Your task to perform on an android device: Open the web browser Image 0: 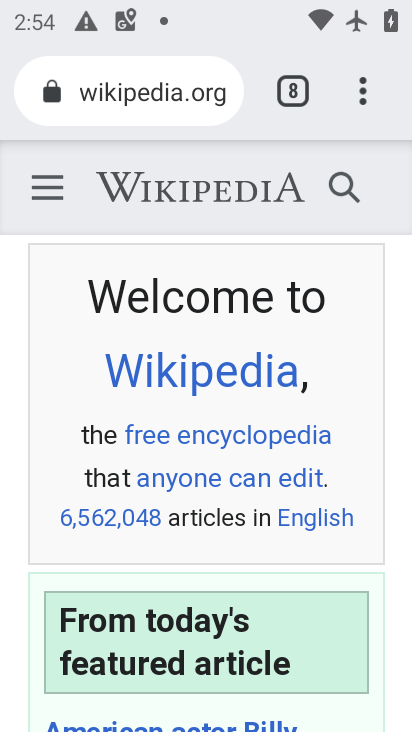
Step 0: task complete